Your task to perform on an android device: manage bookmarks in the chrome app Image 0: 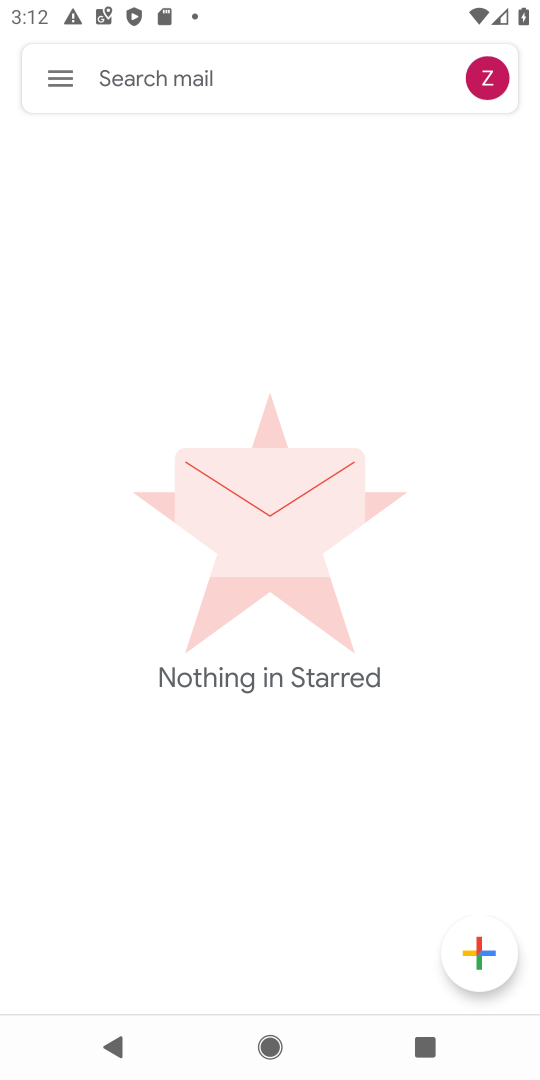
Step 0: press back button
Your task to perform on an android device: manage bookmarks in the chrome app Image 1: 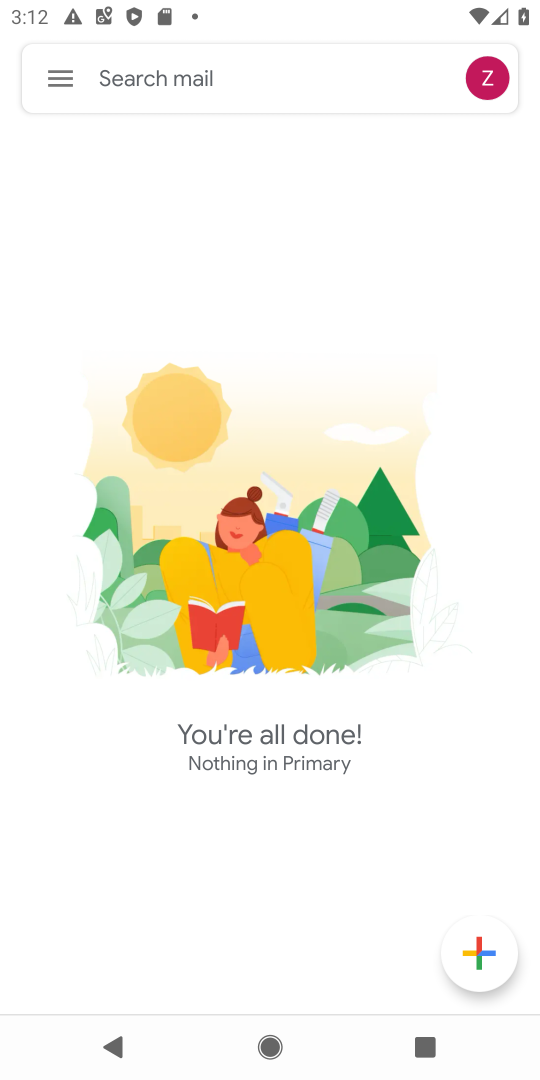
Step 1: press back button
Your task to perform on an android device: manage bookmarks in the chrome app Image 2: 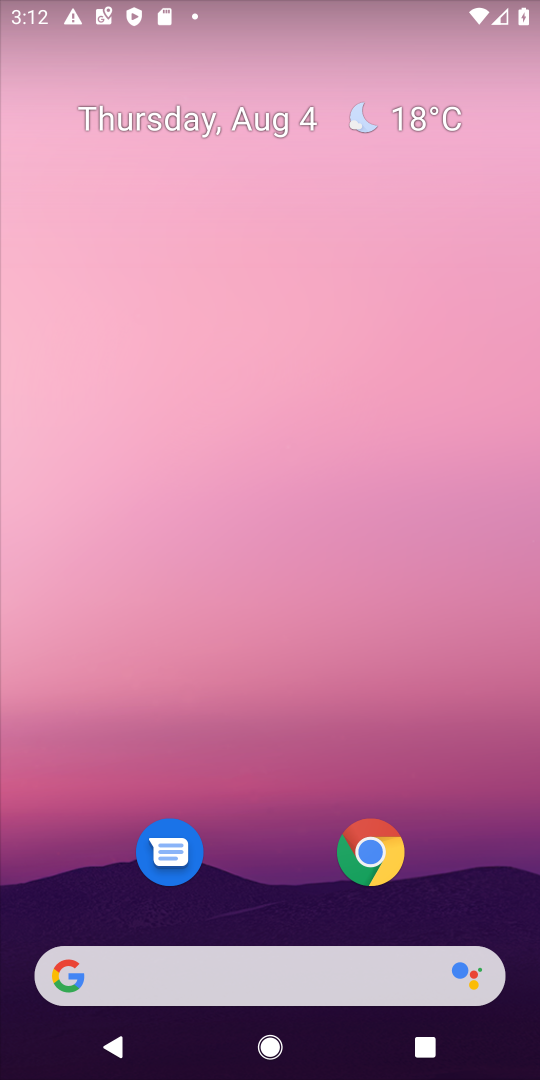
Step 2: click (381, 844)
Your task to perform on an android device: manage bookmarks in the chrome app Image 3: 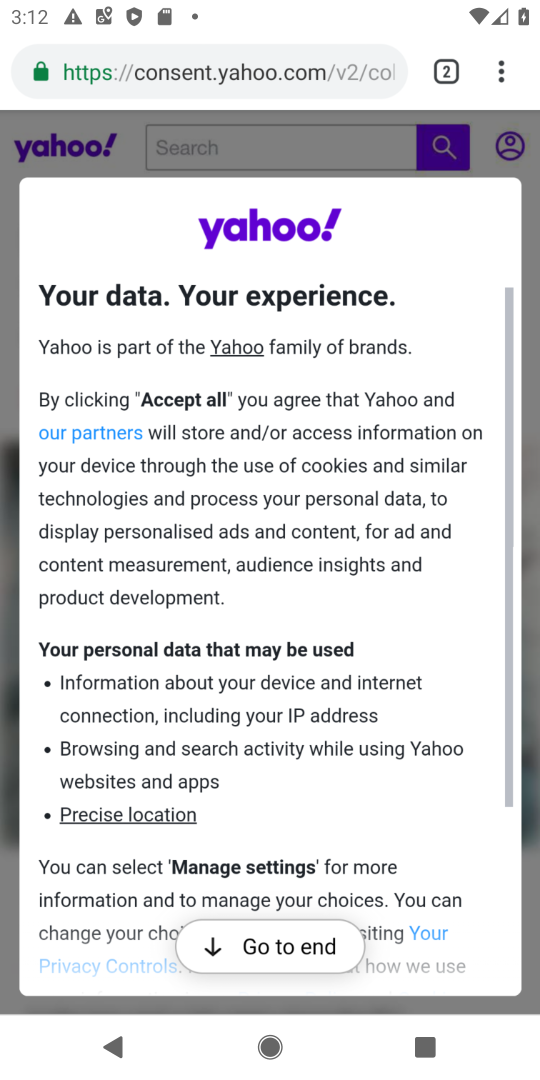
Step 3: drag from (490, 63) to (252, 358)
Your task to perform on an android device: manage bookmarks in the chrome app Image 4: 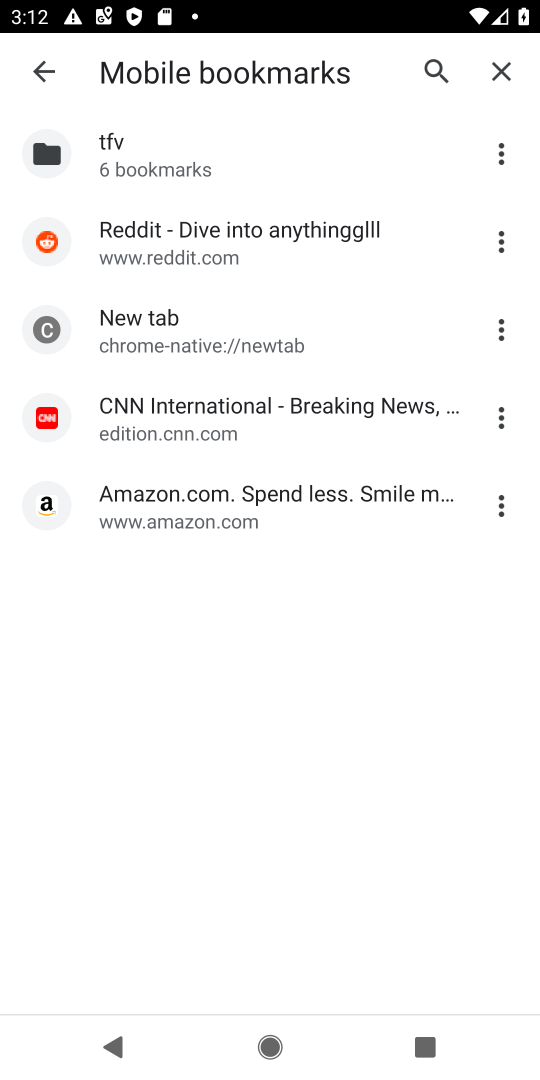
Step 4: click (509, 500)
Your task to perform on an android device: manage bookmarks in the chrome app Image 5: 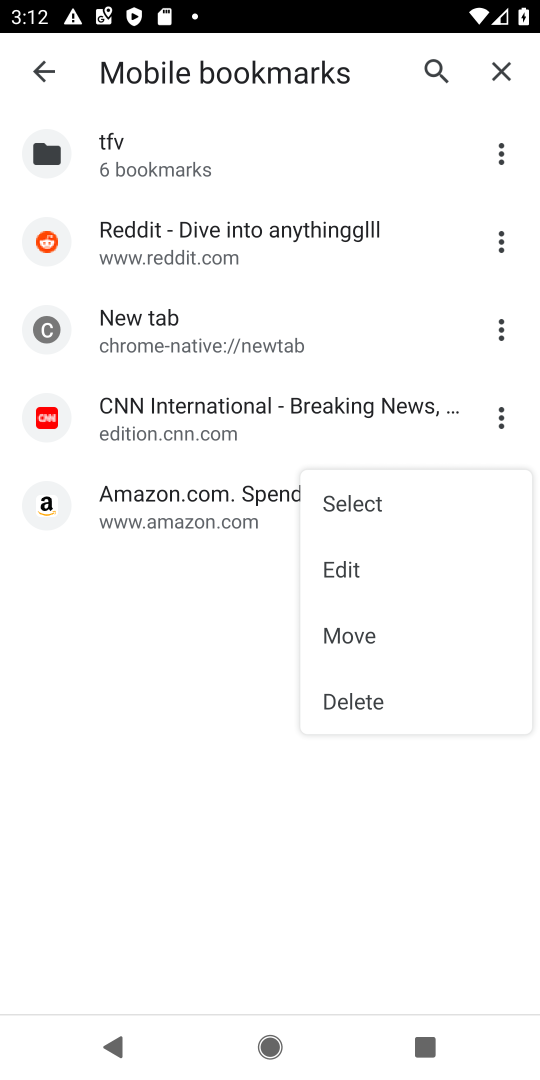
Step 5: click (328, 702)
Your task to perform on an android device: manage bookmarks in the chrome app Image 6: 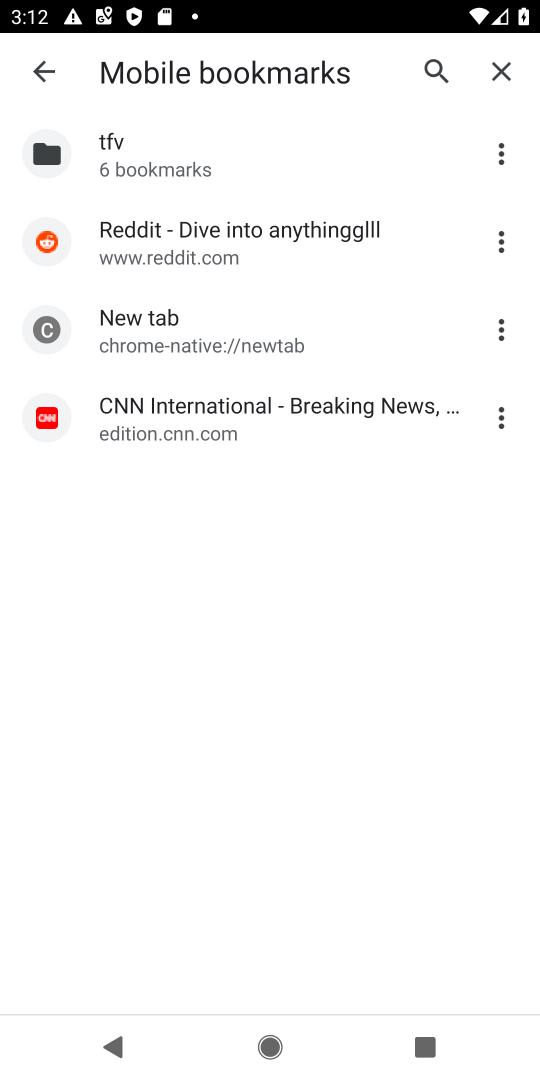
Step 6: task complete